Your task to perform on an android device: Go to location settings Image 0: 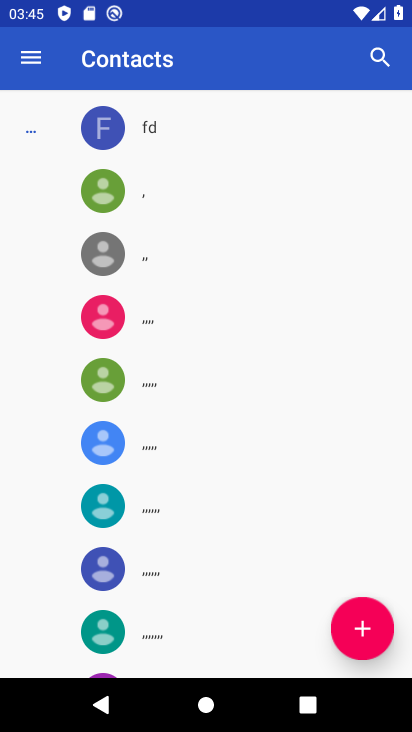
Step 0: press home button
Your task to perform on an android device: Go to location settings Image 1: 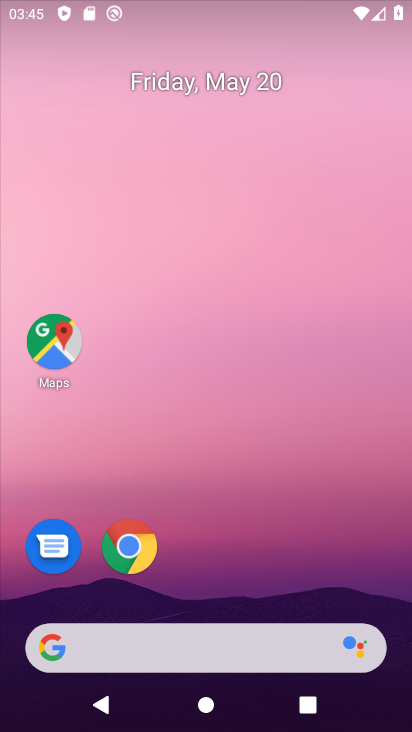
Step 1: drag from (274, 475) to (298, 63)
Your task to perform on an android device: Go to location settings Image 2: 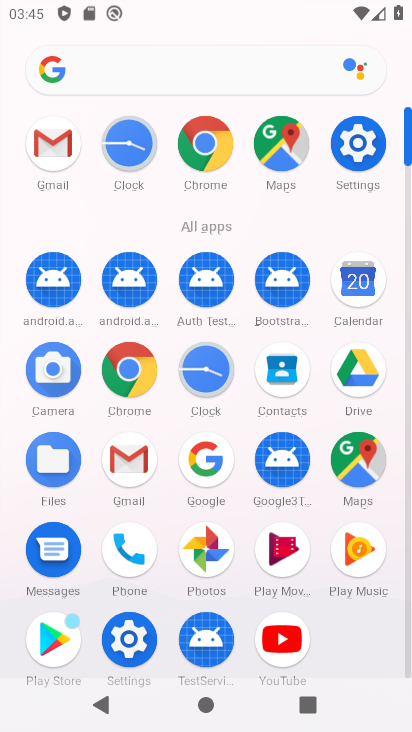
Step 2: click (370, 135)
Your task to perform on an android device: Go to location settings Image 3: 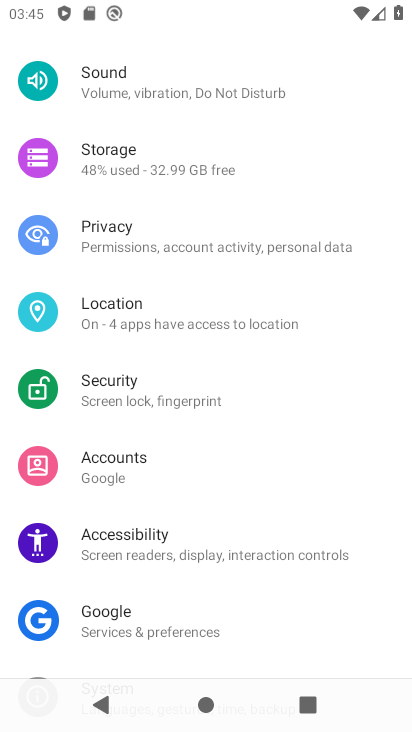
Step 3: click (169, 323)
Your task to perform on an android device: Go to location settings Image 4: 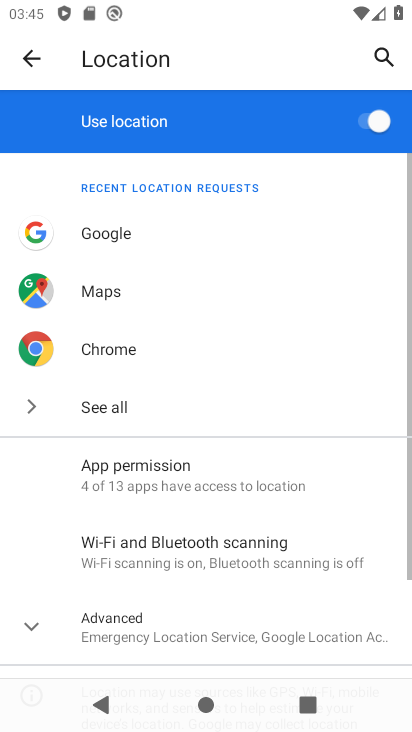
Step 4: task complete